Your task to perform on an android device: Open maps Image 0: 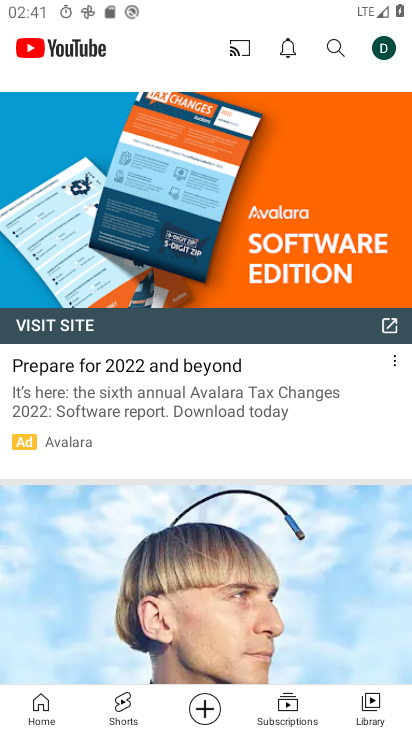
Step 0: press home button
Your task to perform on an android device: Open maps Image 1: 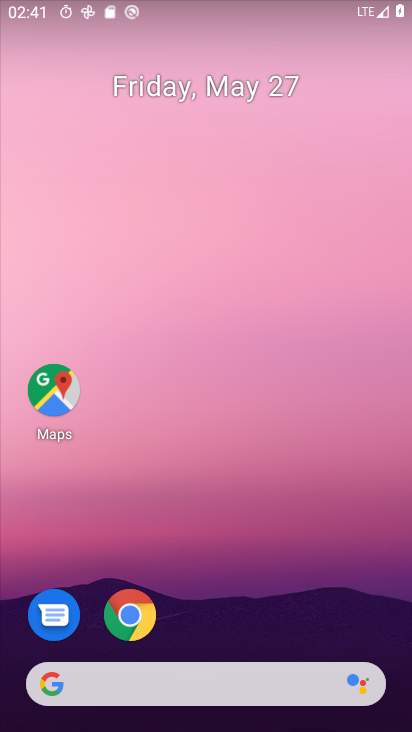
Step 1: drag from (347, 628) to (359, 189)
Your task to perform on an android device: Open maps Image 2: 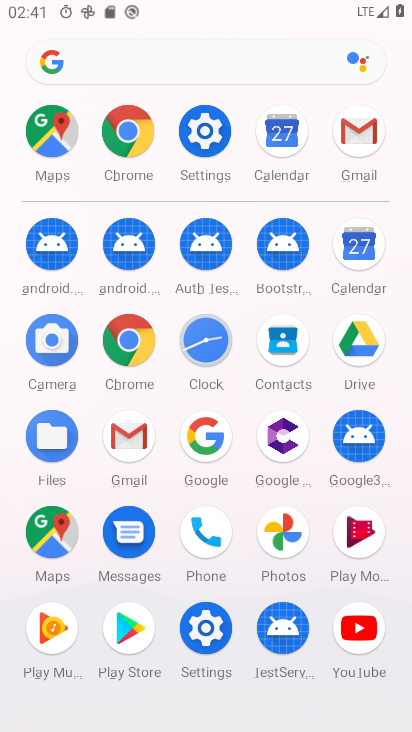
Step 2: click (59, 528)
Your task to perform on an android device: Open maps Image 3: 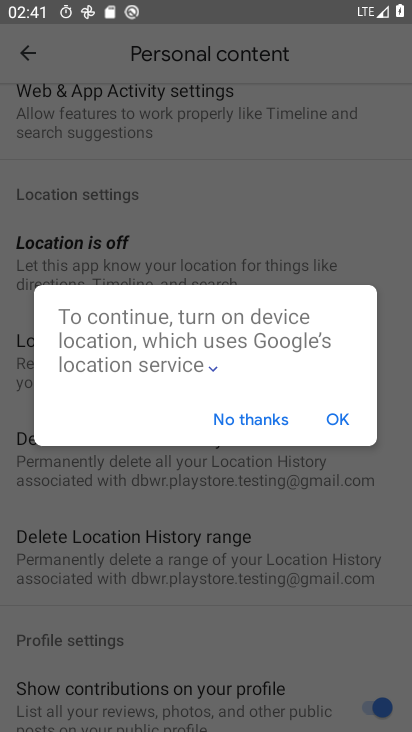
Step 3: click (231, 420)
Your task to perform on an android device: Open maps Image 4: 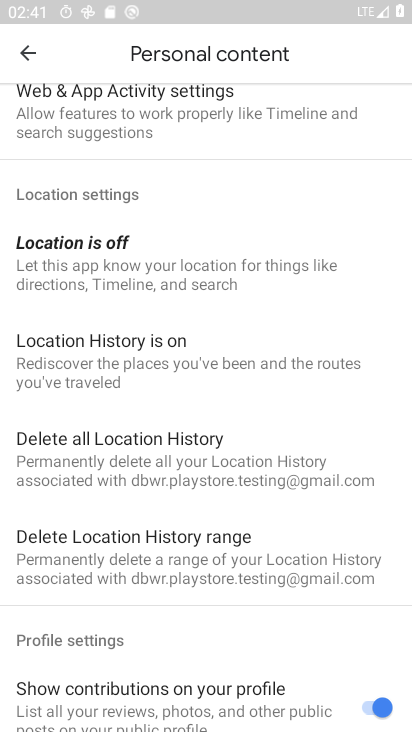
Step 4: click (34, 51)
Your task to perform on an android device: Open maps Image 5: 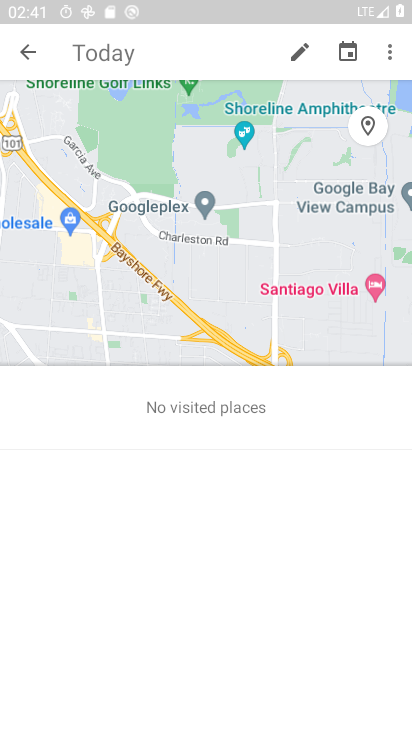
Step 5: task complete